Your task to perform on an android device: Go to eBay Image 0: 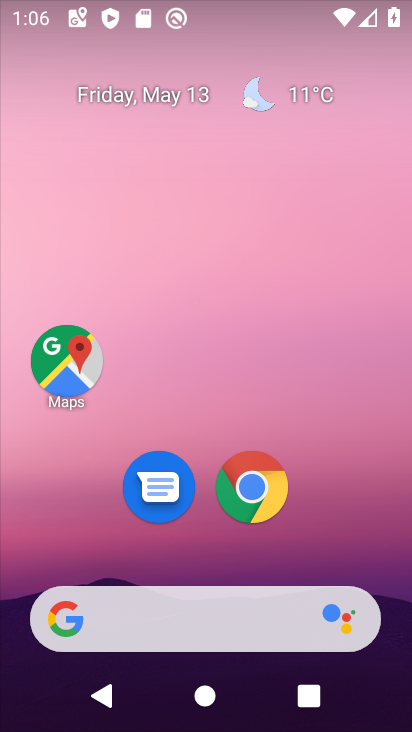
Step 0: click (275, 502)
Your task to perform on an android device: Go to eBay Image 1: 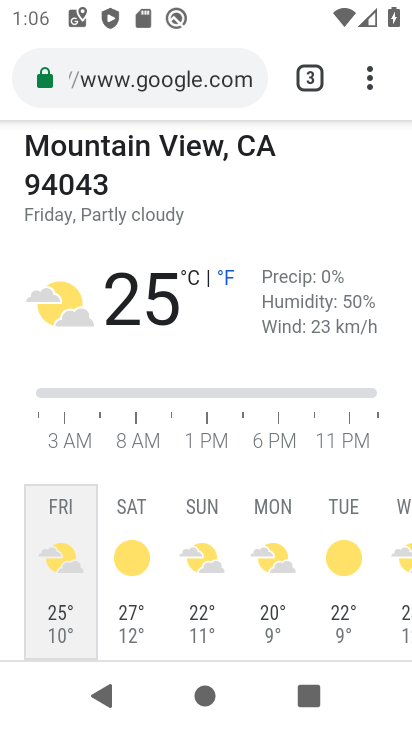
Step 1: click (176, 90)
Your task to perform on an android device: Go to eBay Image 2: 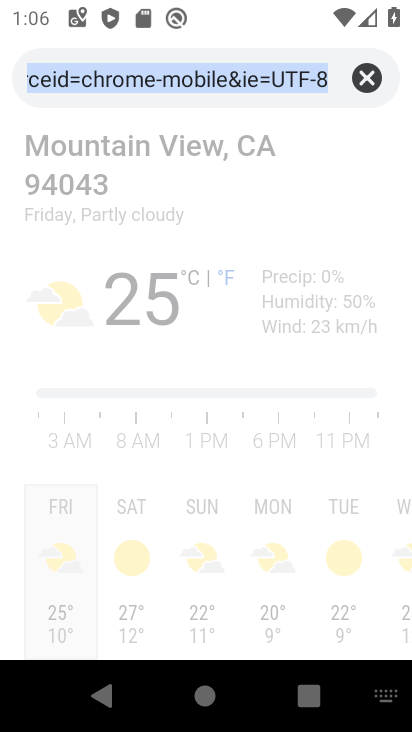
Step 2: type "ebay"
Your task to perform on an android device: Go to eBay Image 3: 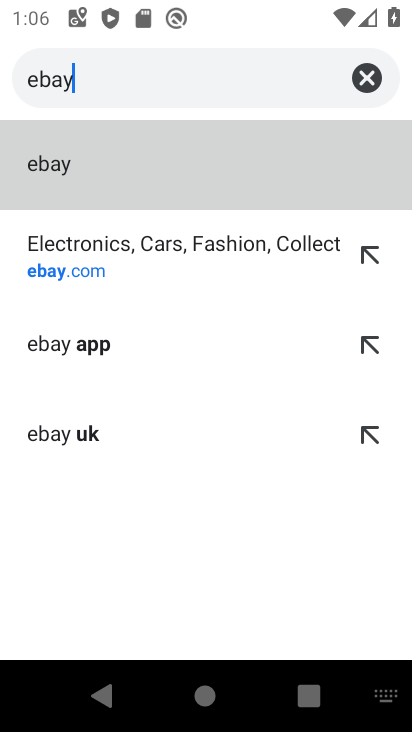
Step 3: click (81, 259)
Your task to perform on an android device: Go to eBay Image 4: 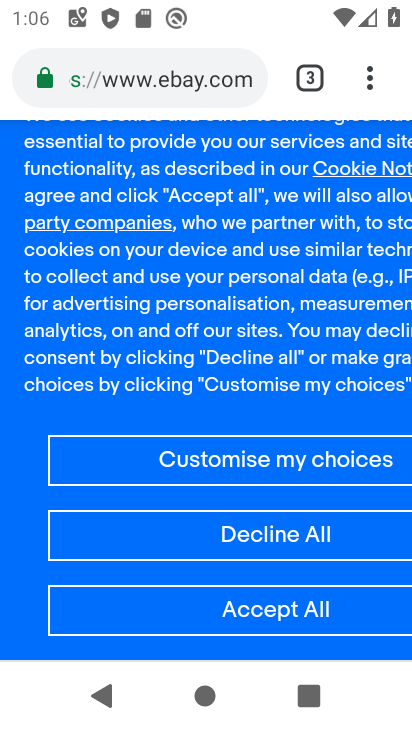
Step 4: task complete